Your task to perform on an android device: Open privacy settings Image 0: 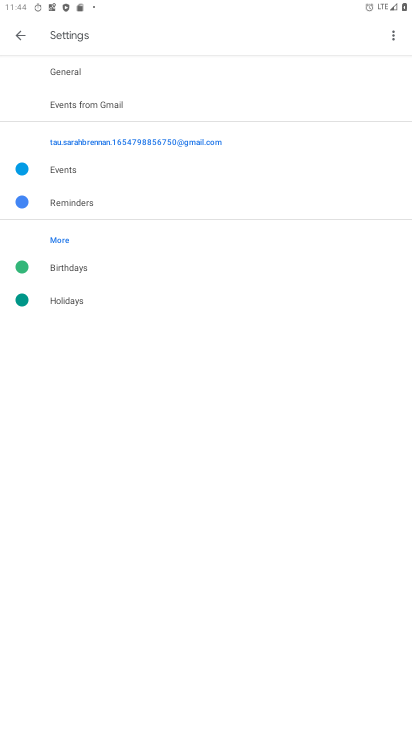
Step 0: press home button
Your task to perform on an android device: Open privacy settings Image 1: 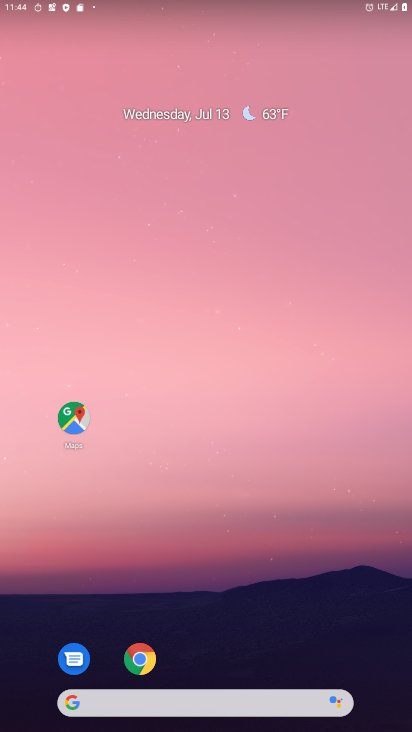
Step 1: drag from (285, 622) to (223, 113)
Your task to perform on an android device: Open privacy settings Image 2: 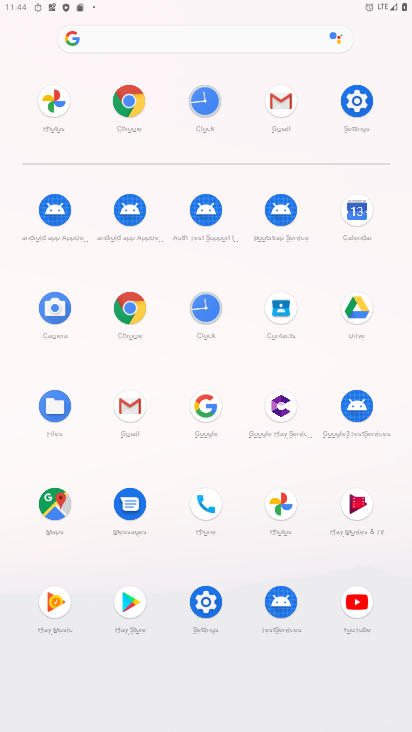
Step 2: click (364, 103)
Your task to perform on an android device: Open privacy settings Image 3: 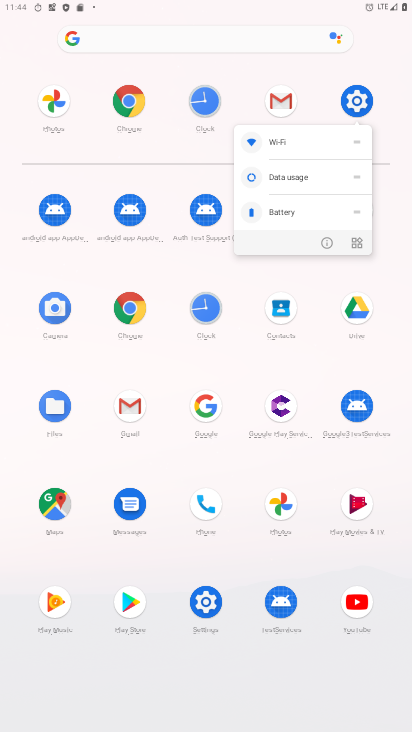
Step 3: click (353, 104)
Your task to perform on an android device: Open privacy settings Image 4: 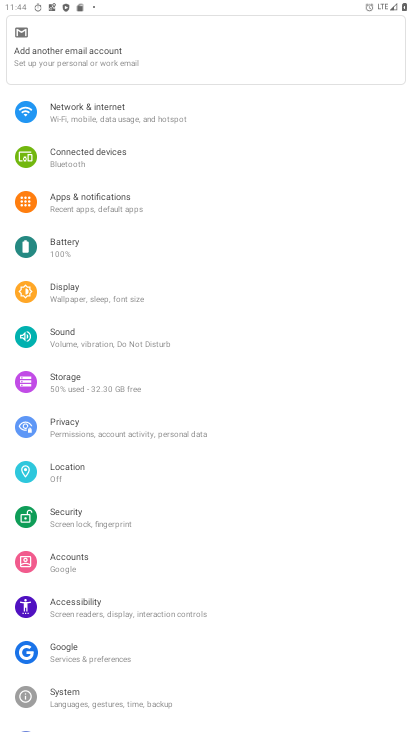
Step 4: click (82, 427)
Your task to perform on an android device: Open privacy settings Image 5: 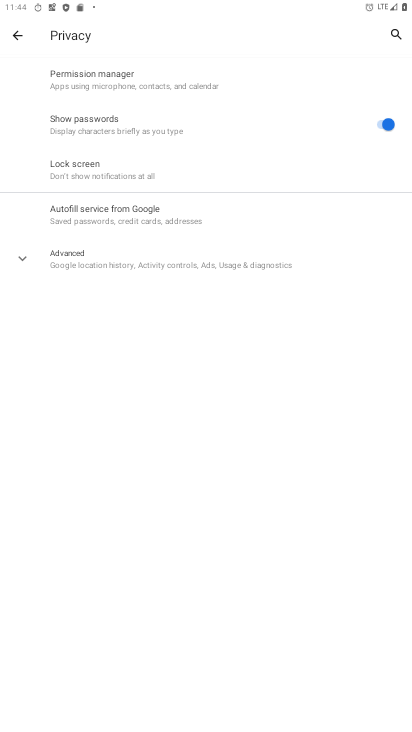
Step 5: task complete